Your task to perform on an android device: Open settings Image 0: 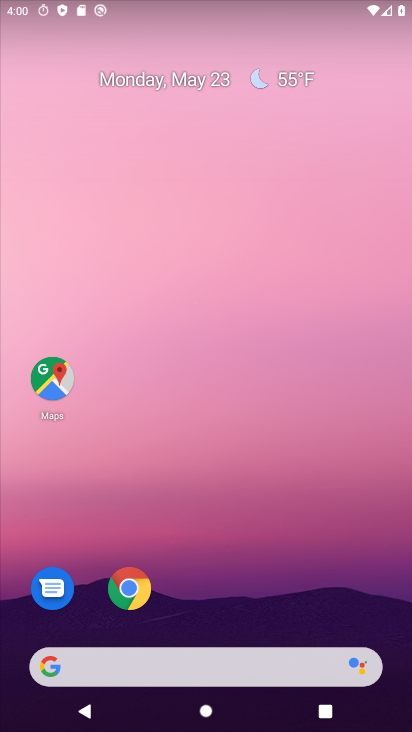
Step 0: drag from (229, 598) to (237, 125)
Your task to perform on an android device: Open settings Image 1: 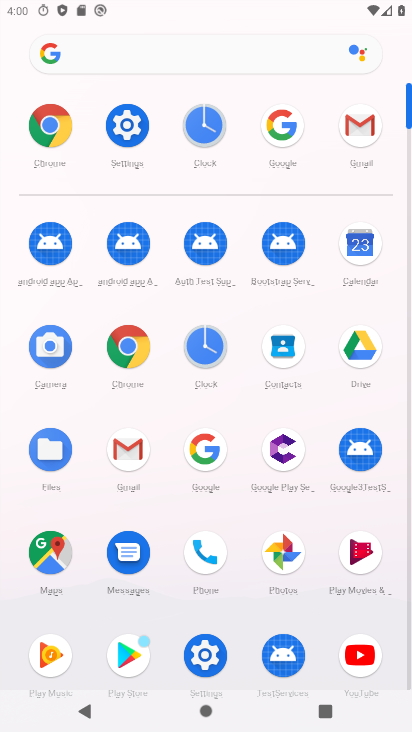
Step 1: click (128, 123)
Your task to perform on an android device: Open settings Image 2: 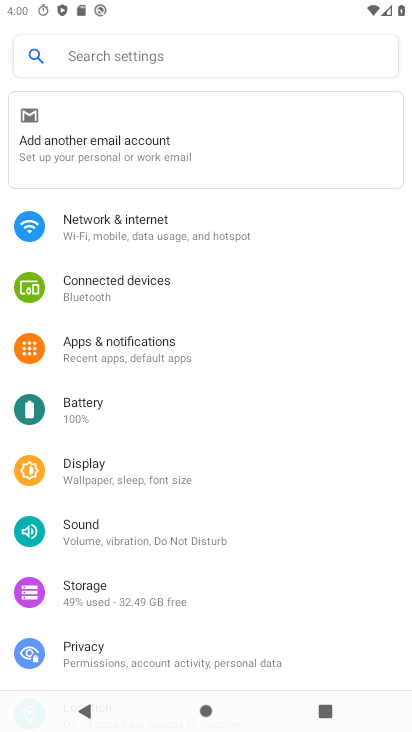
Step 2: task complete